Your task to perform on an android device: turn off wifi Image 0: 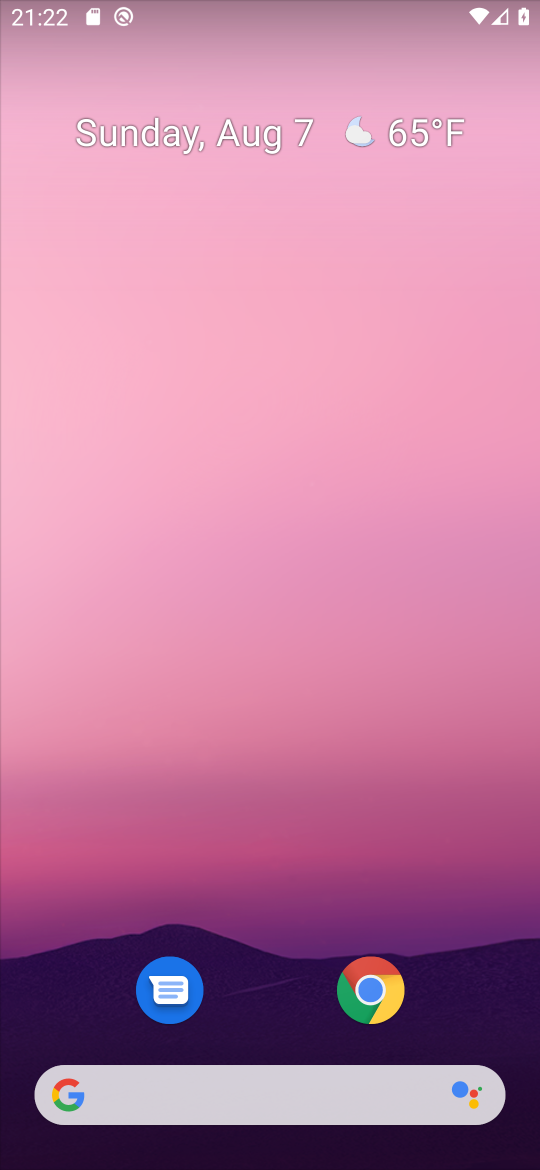
Step 0: drag from (272, 769) to (272, 0)
Your task to perform on an android device: turn off wifi Image 1: 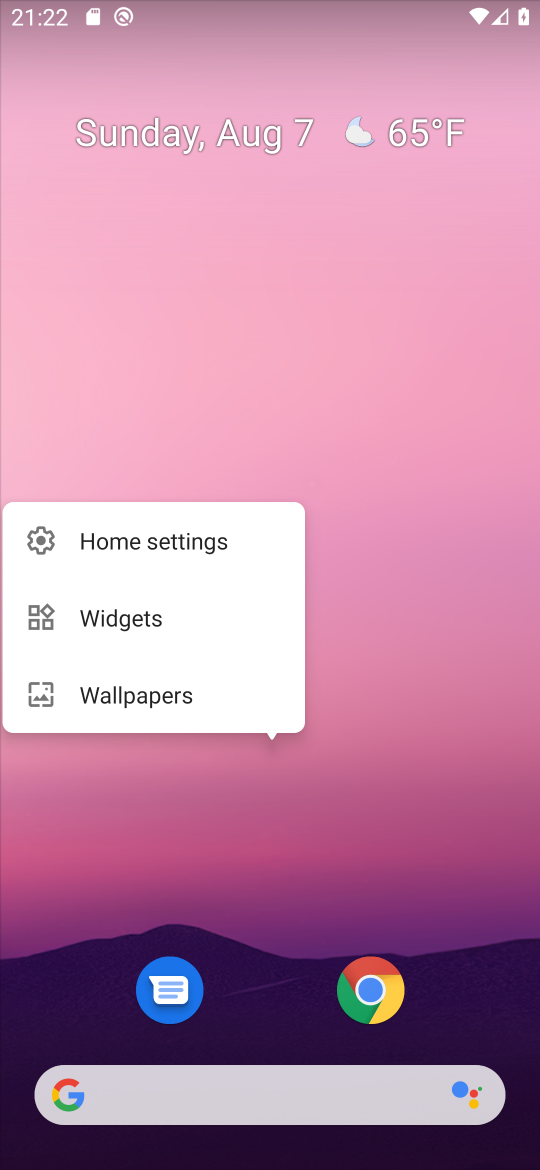
Step 1: click (397, 433)
Your task to perform on an android device: turn off wifi Image 2: 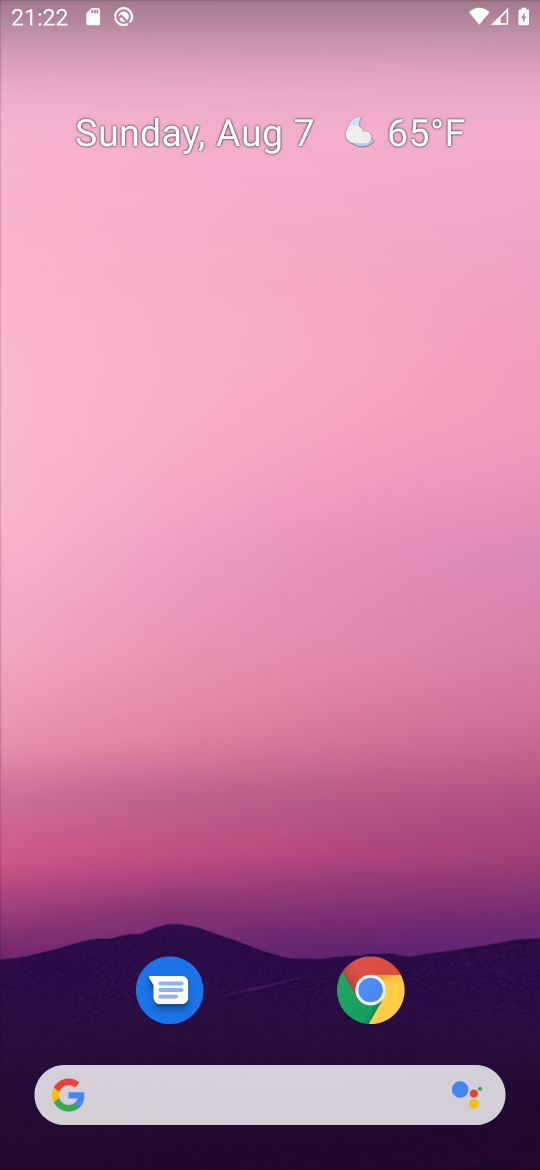
Step 2: drag from (270, 957) to (325, 0)
Your task to perform on an android device: turn off wifi Image 3: 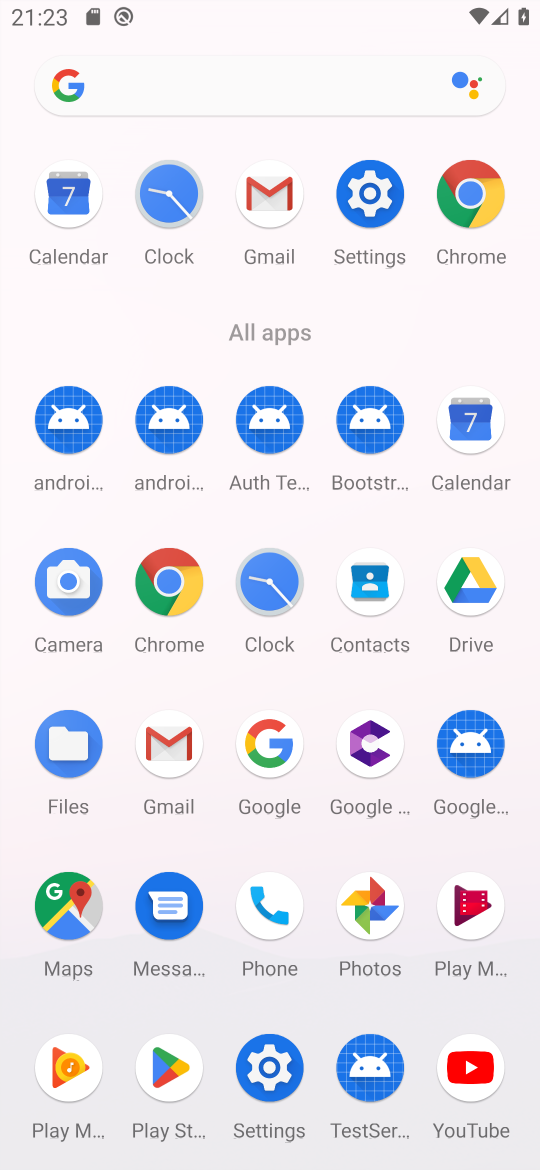
Step 3: click (366, 184)
Your task to perform on an android device: turn off wifi Image 4: 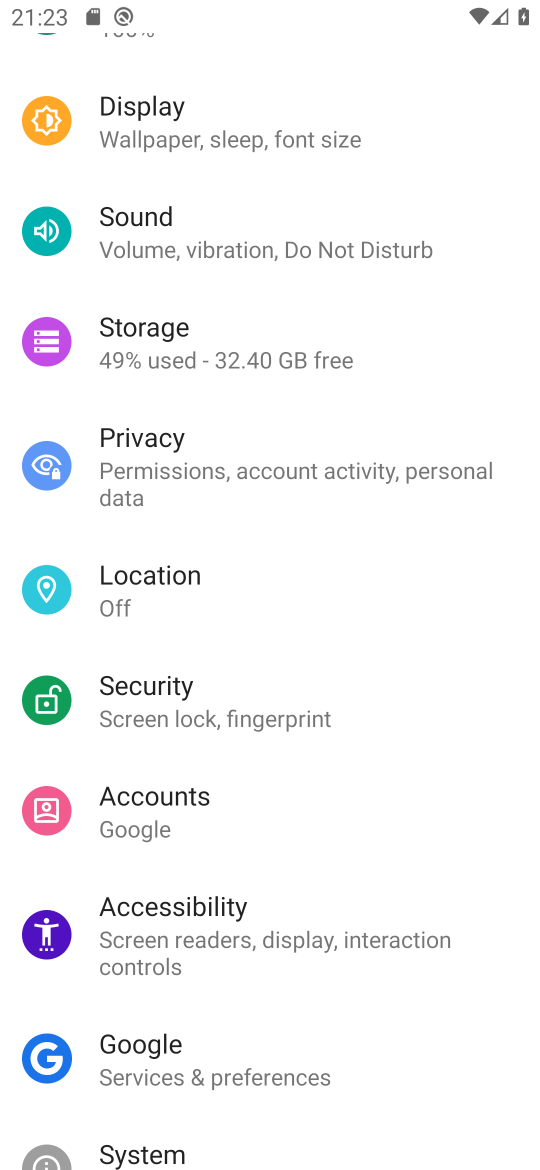
Step 4: drag from (370, 214) to (390, 997)
Your task to perform on an android device: turn off wifi Image 5: 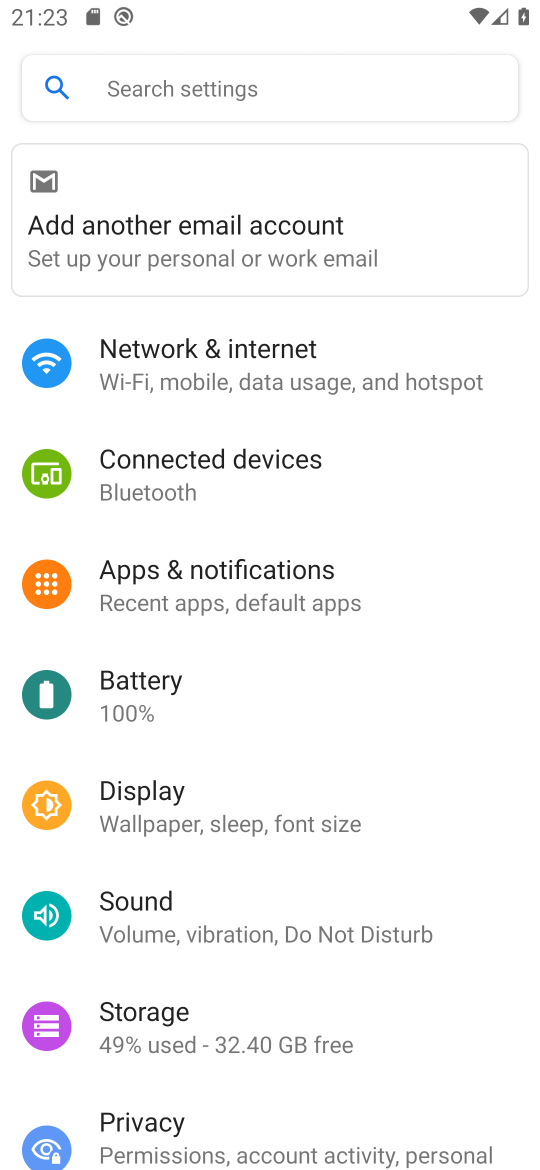
Step 5: click (260, 361)
Your task to perform on an android device: turn off wifi Image 6: 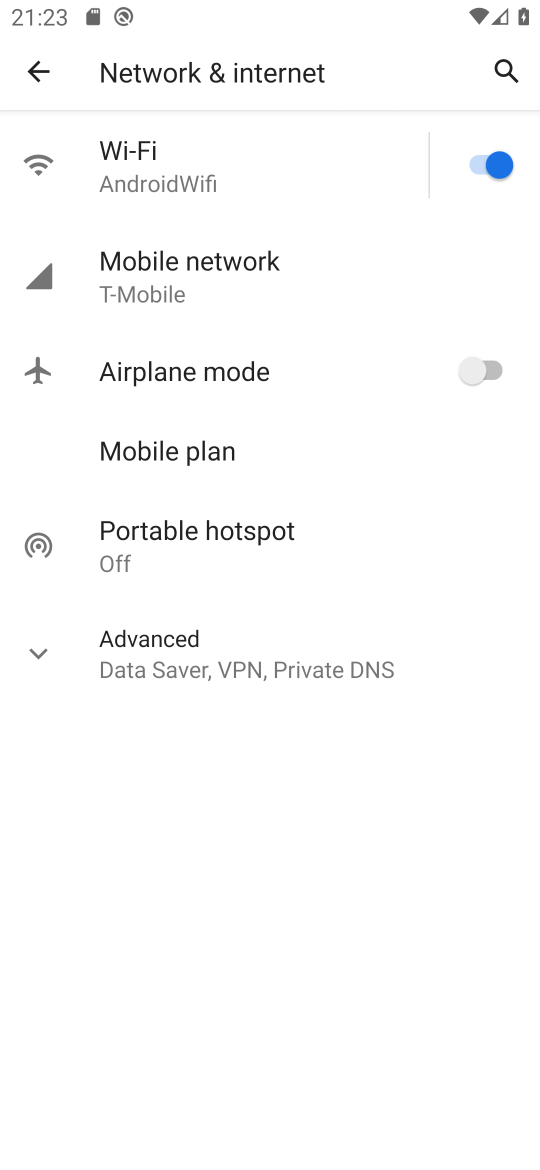
Step 6: click (471, 156)
Your task to perform on an android device: turn off wifi Image 7: 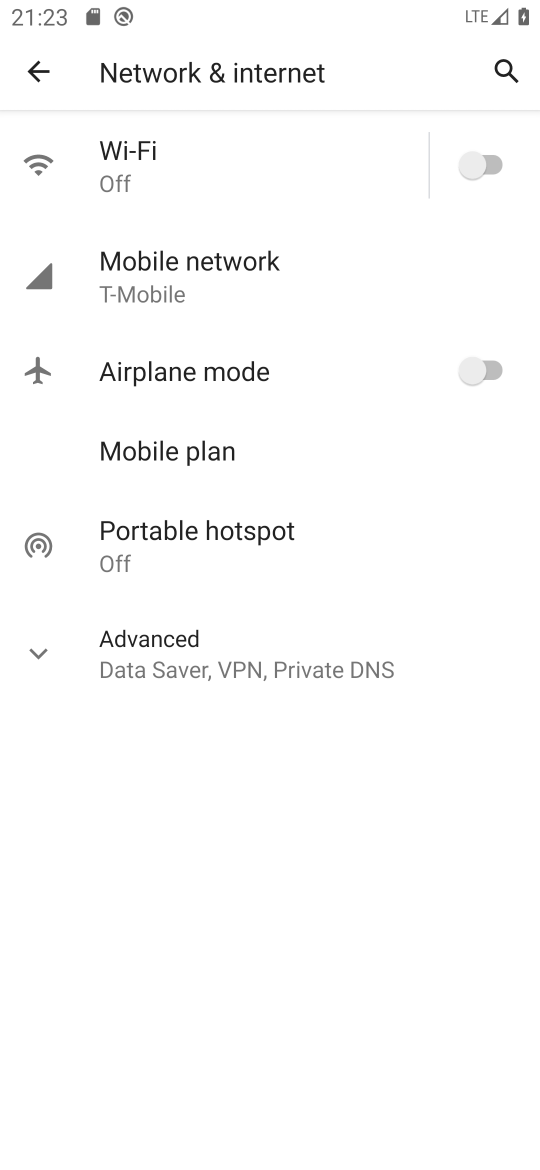
Step 7: task complete